Your task to perform on an android device: turn off data saver in the chrome app Image 0: 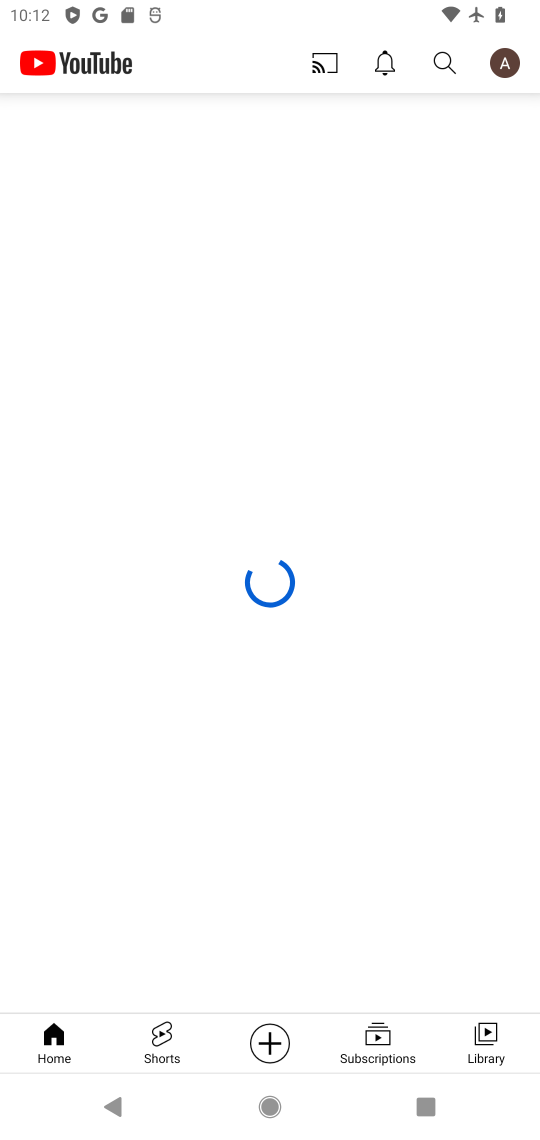
Step 0: press home button
Your task to perform on an android device: turn off data saver in the chrome app Image 1: 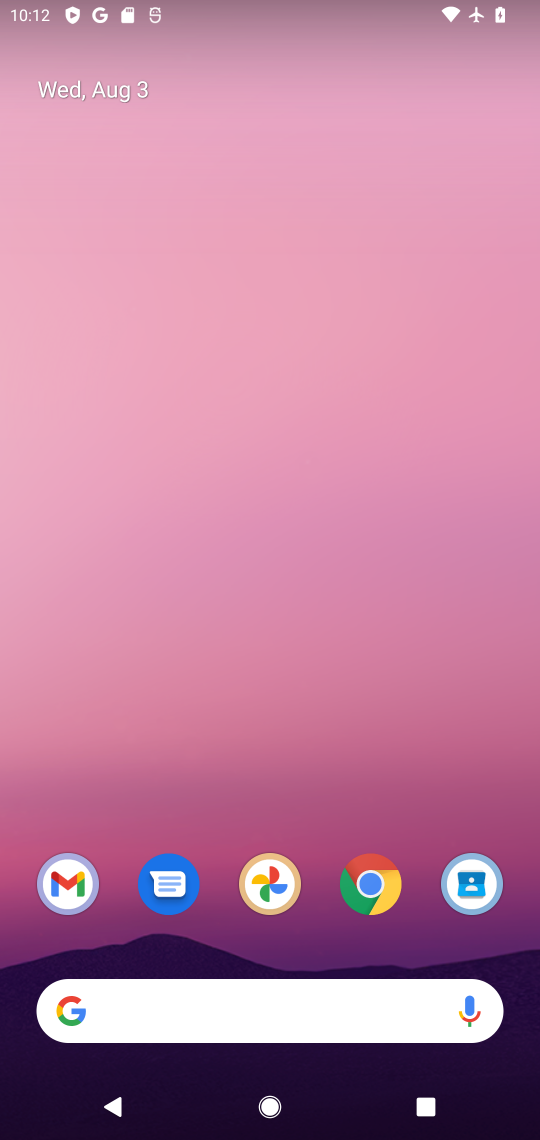
Step 1: click (380, 892)
Your task to perform on an android device: turn off data saver in the chrome app Image 2: 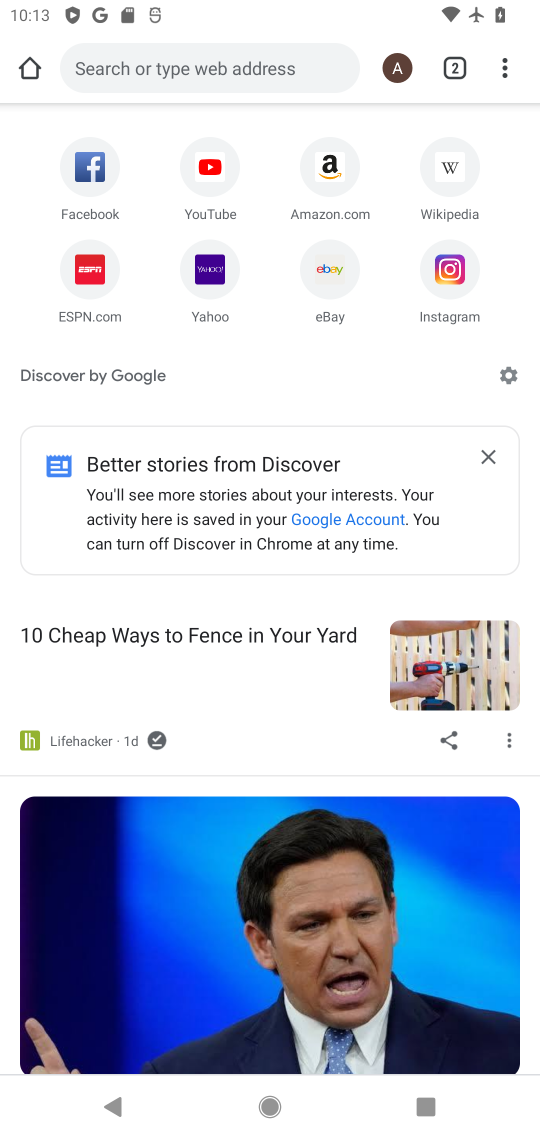
Step 2: drag from (510, 67) to (326, 674)
Your task to perform on an android device: turn off data saver in the chrome app Image 3: 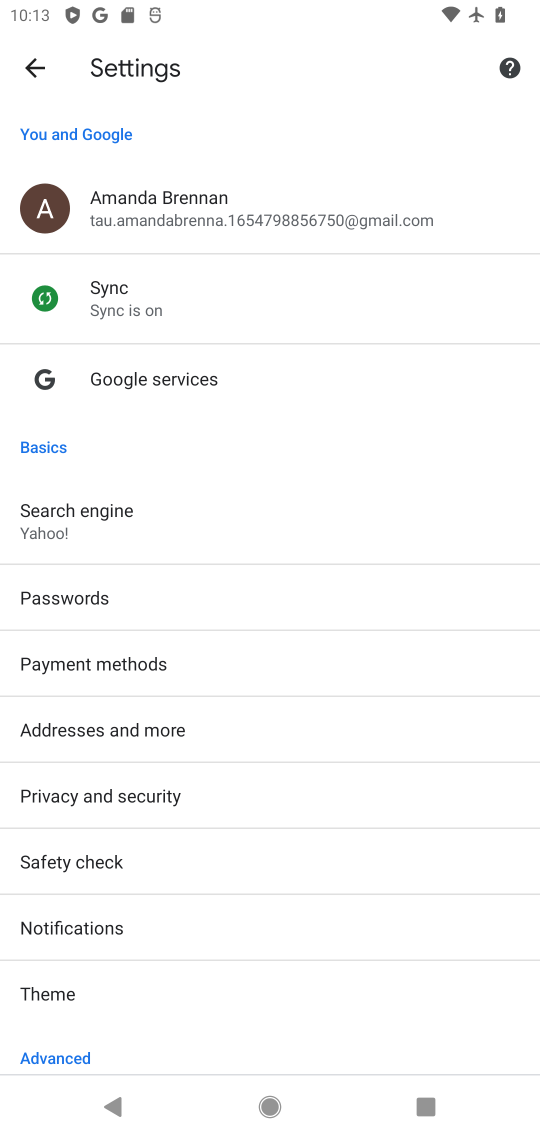
Step 3: drag from (315, 977) to (169, 223)
Your task to perform on an android device: turn off data saver in the chrome app Image 4: 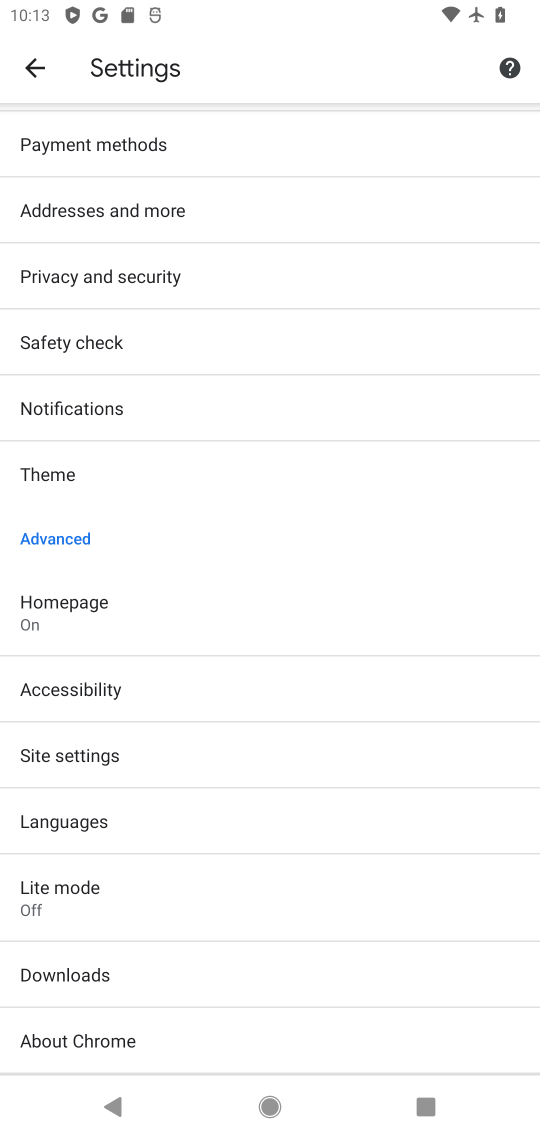
Step 4: click (47, 895)
Your task to perform on an android device: turn off data saver in the chrome app Image 5: 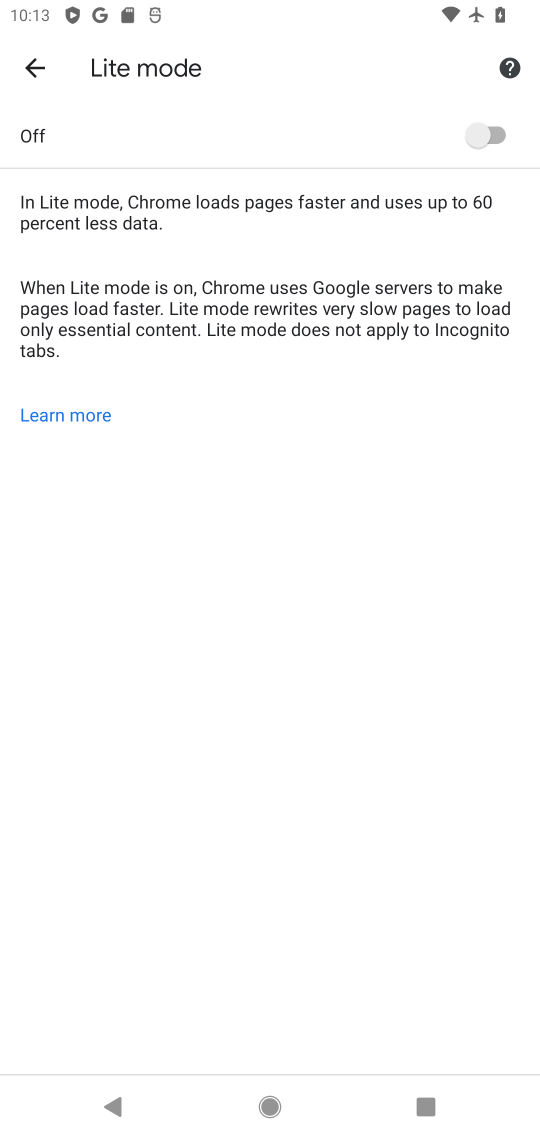
Step 5: task complete